Your task to perform on an android device: Show me recent news Image 0: 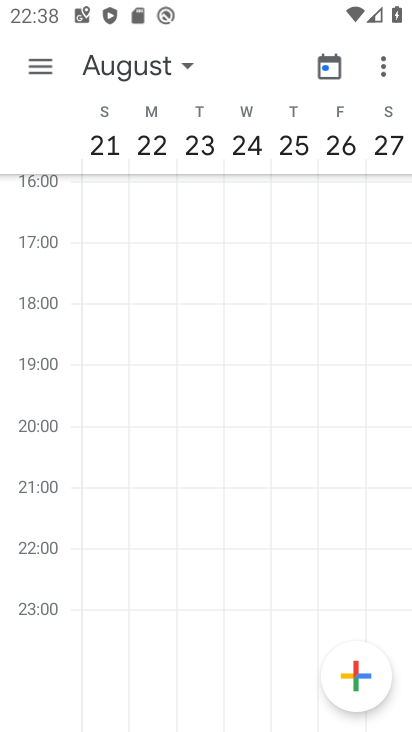
Step 0: press home button
Your task to perform on an android device: Show me recent news Image 1: 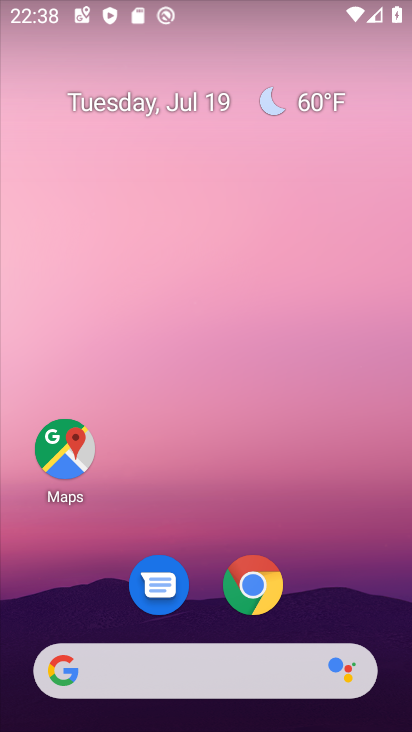
Step 1: click (235, 661)
Your task to perform on an android device: Show me recent news Image 2: 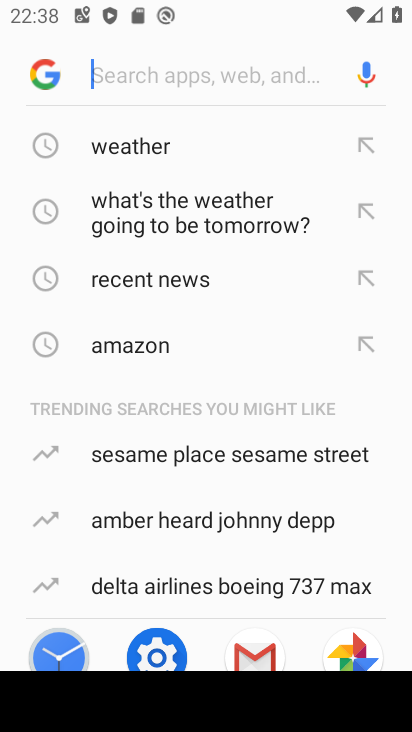
Step 2: click (172, 281)
Your task to perform on an android device: Show me recent news Image 3: 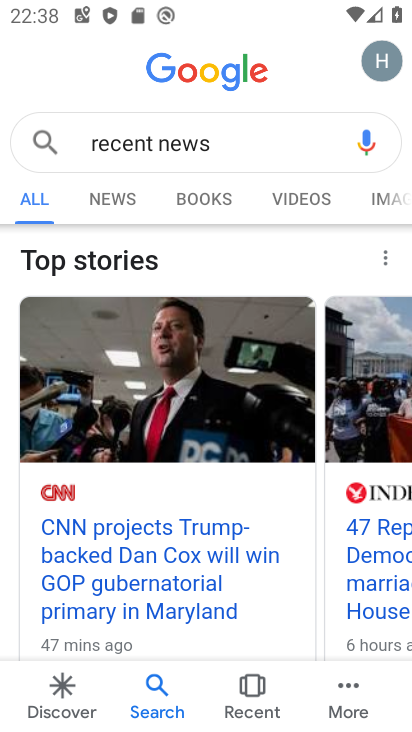
Step 3: task complete